Your task to perform on an android device: Open battery settings Image 0: 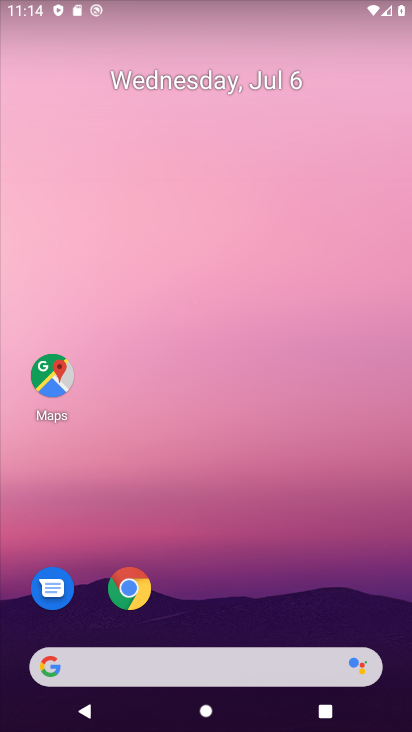
Step 0: drag from (28, 700) to (247, 195)
Your task to perform on an android device: Open battery settings Image 1: 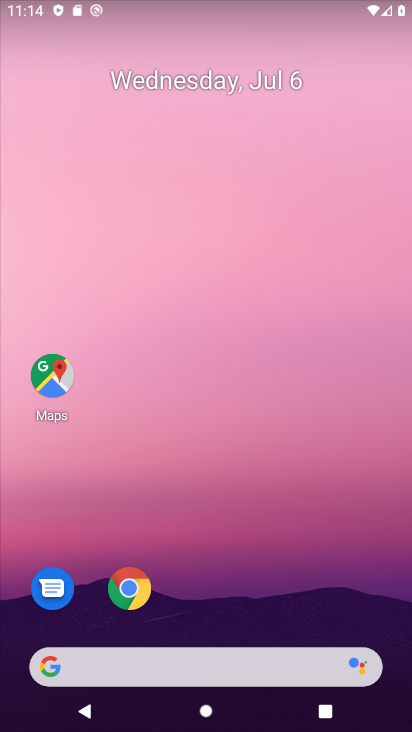
Step 1: drag from (21, 703) to (171, 126)
Your task to perform on an android device: Open battery settings Image 2: 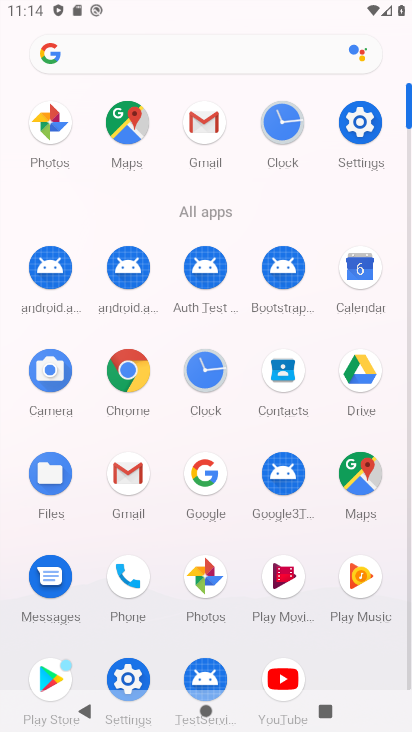
Step 2: click (115, 676)
Your task to perform on an android device: Open battery settings Image 3: 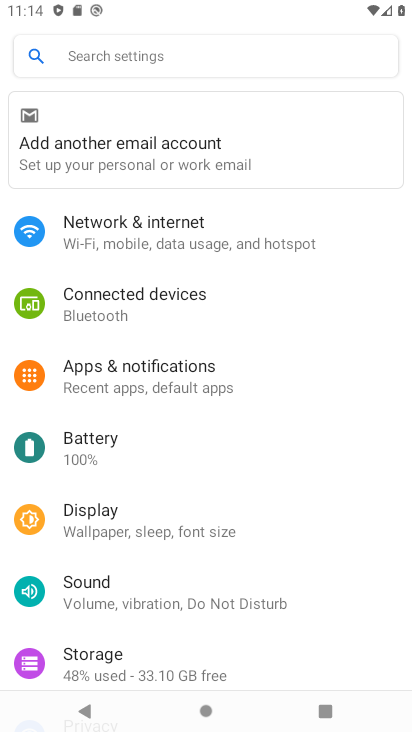
Step 3: click (114, 338)
Your task to perform on an android device: Open battery settings Image 4: 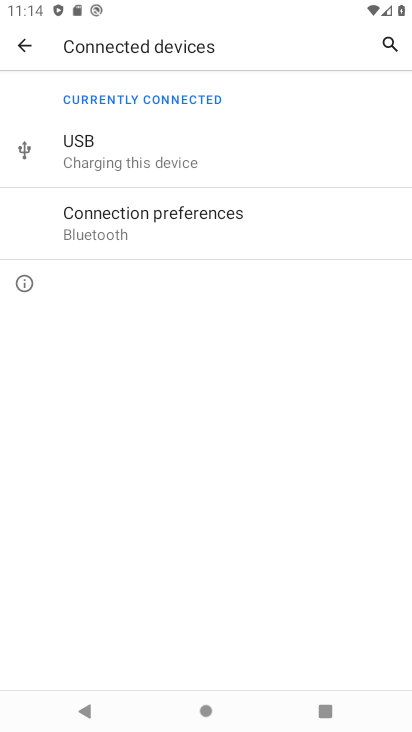
Step 4: task complete